Your task to perform on an android device: Open Google Image 0: 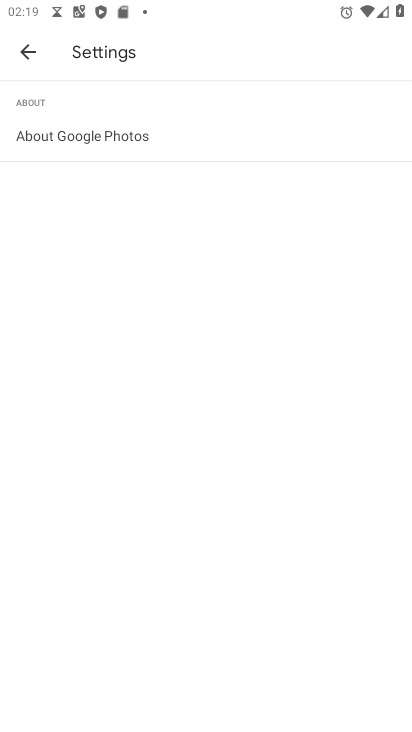
Step 0: press home button
Your task to perform on an android device: Open Google Image 1: 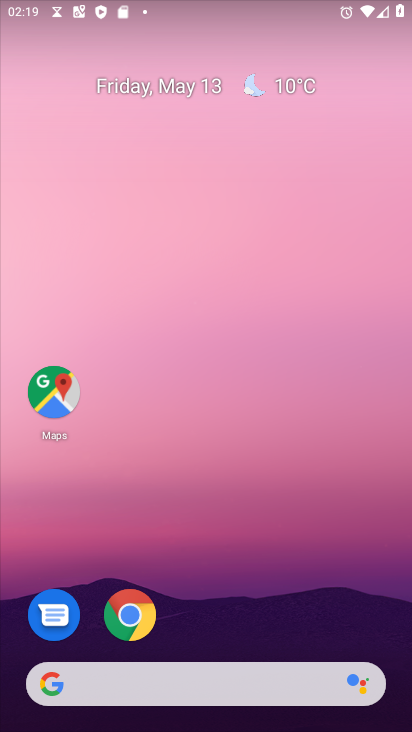
Step 1: drag from (249, 591) to (54, 123)
Your task to perform on an android device: Open Google Image 2: 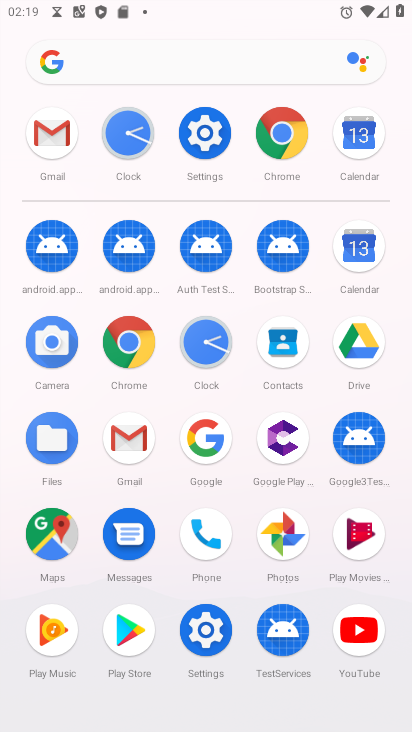
Step 2: click (204, 440)
Your task to perform on an android device: Open Google Image 3: 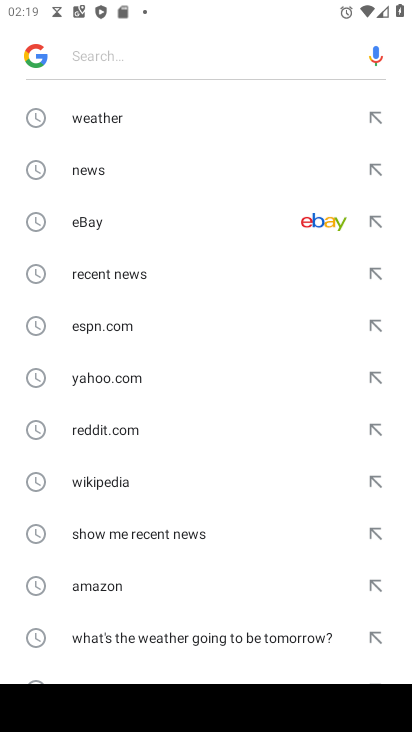
Step 3: task complete